Your task to perform on an android device: check the backup settings in the google photos Image 0: 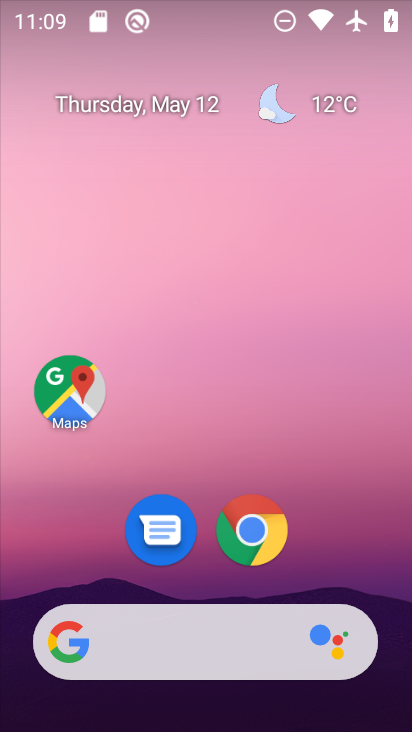
Step 0: drag from (143, 658) to (381, 87)
Your task to perform on an android device: check the backup settings in the google photos Image 1: 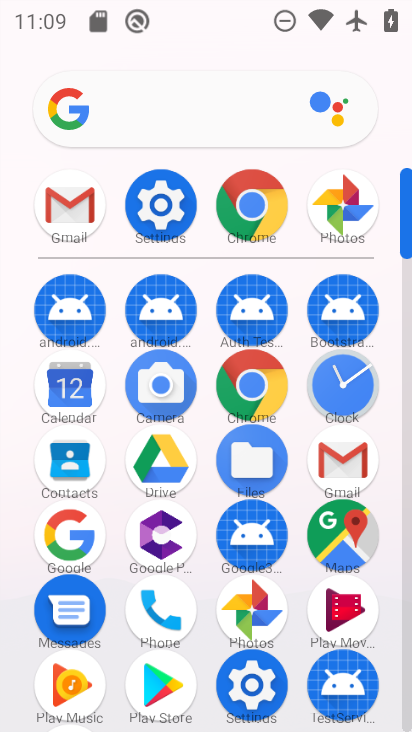
Step 1: click (243, 605)
Your task to perform on an android device: check the backup settings in the google photos Image 2: 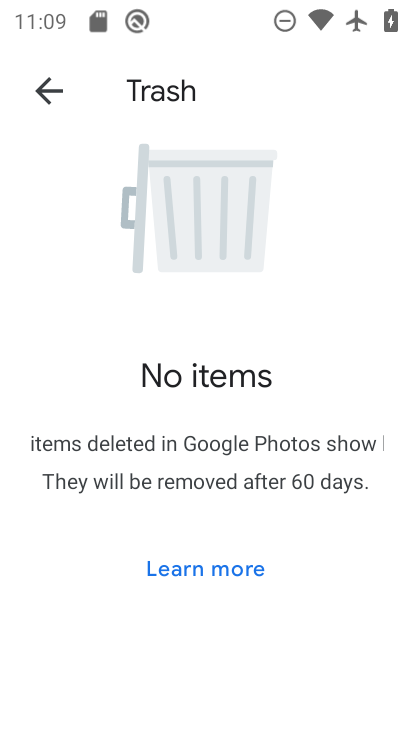
Step 2: click (44, 71)
Your task to perform on an android device: check the backup settings in the google photos Image 3: 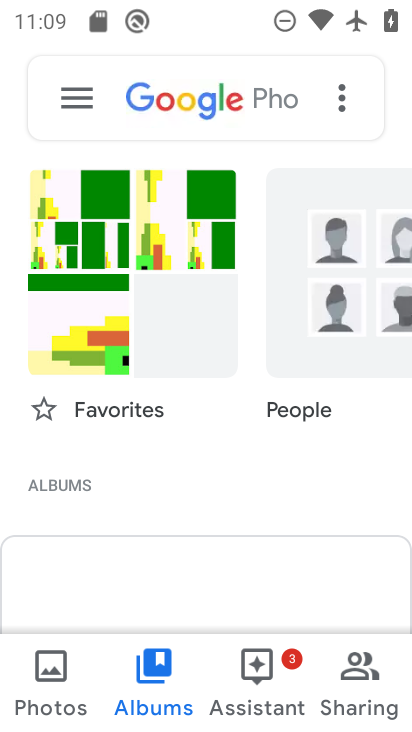
Step 3: click (83, 99)
Your task to perform on an android device: check the backup settings in the google photos Image 4: 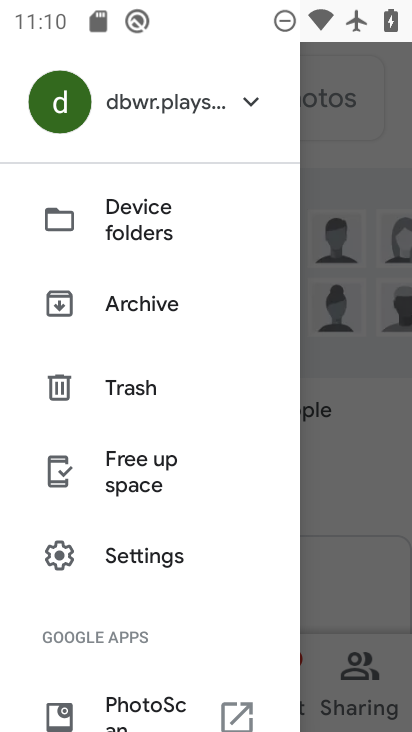
Step 4: click (153, 560)
Your task to perform on an android device: check the backup settings in the google photos Image 5: 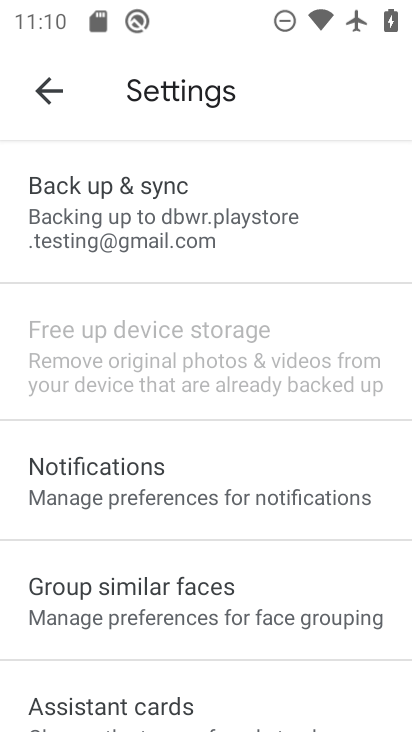
Step 5: click (257, 236)
Your task to perform on an android device: check the backup settings in the google photos Image 6: 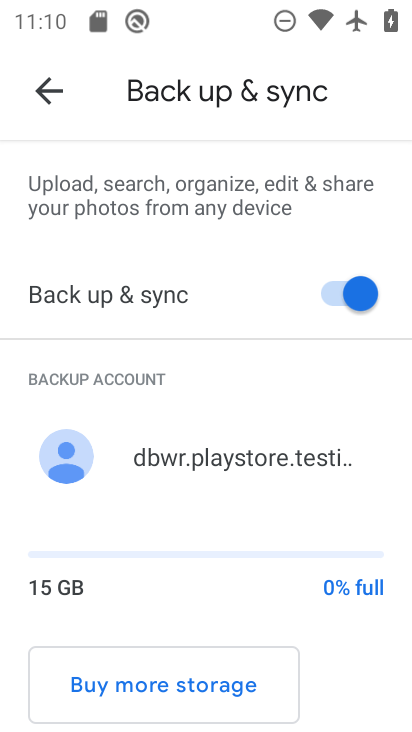
Step 6: task complete